Your task to perform on an android device: Go to sound settings Image 0: 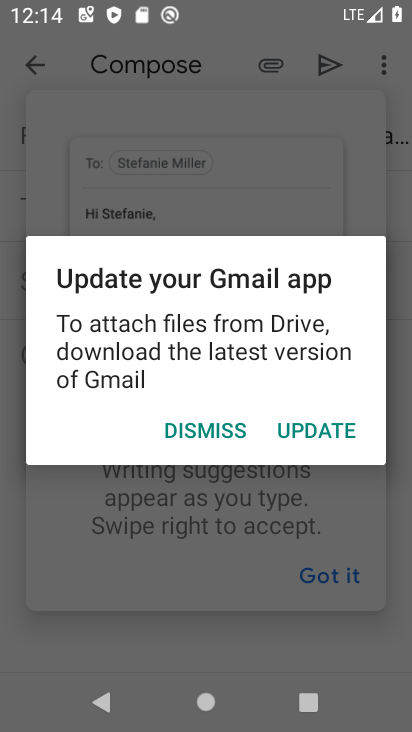
Step 0: press home button
Your task to perform on an android device: Go to sound settings Image 1: 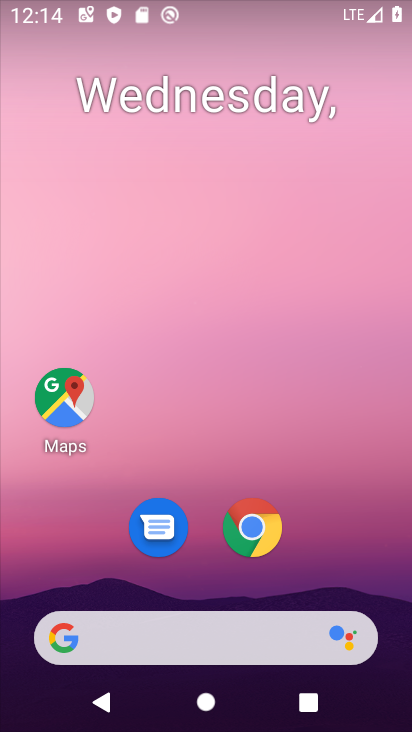
Step 1: drag from (260, 660) to (362, 52)
Your task to perform on an android device: Go to sound settings Image 2: 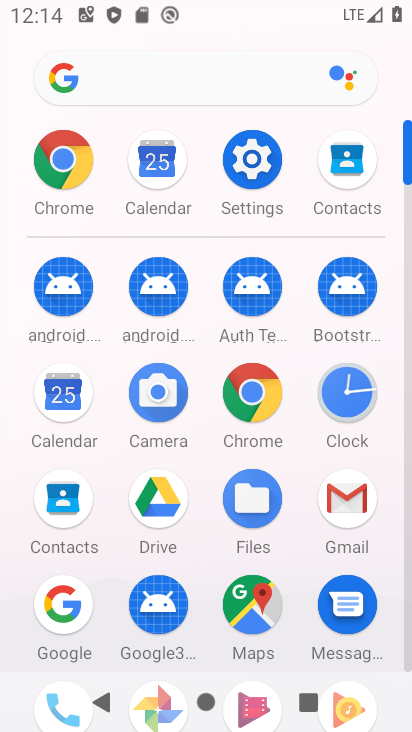
Step 2: click (253, 157)
Your task to perform on an android device: Go to sound settings Image 3: 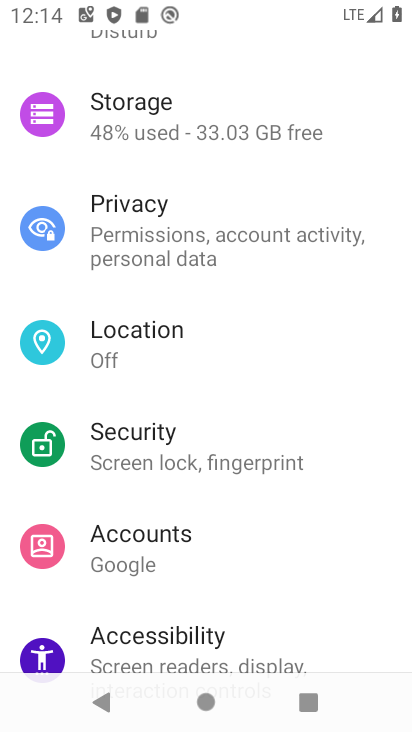
Step 3: drag from (207, 167) to (227, 615)
Your task to perform on an android device: Go to sound settings Image 4: 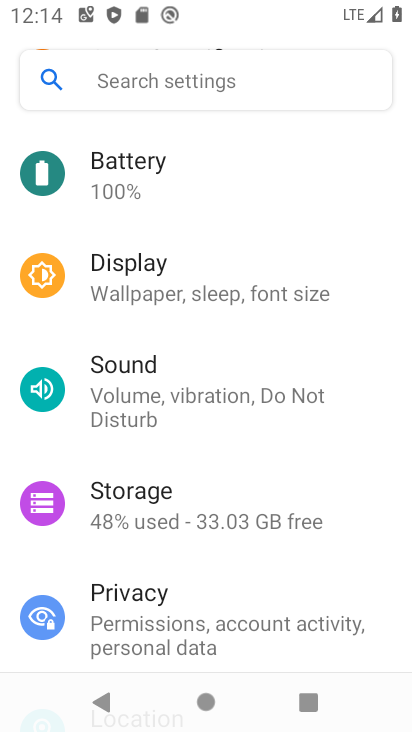
Step 4: click (193, 397)
Your task to perform on an android device: Go to sound settings Image 5: 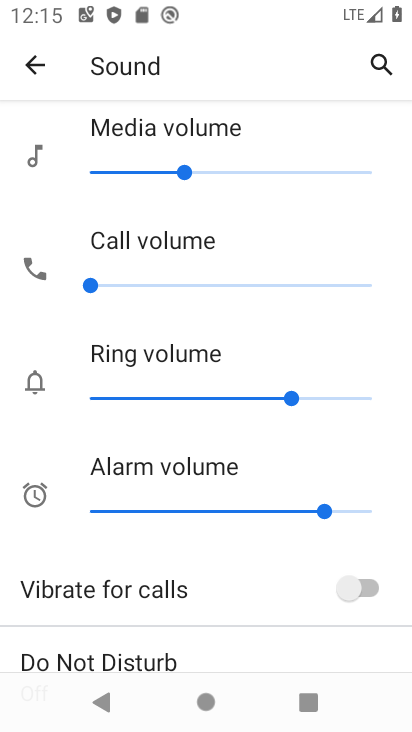
Step 5: task complete